Your task to perform on an android device: open a new tab in the chrome app Image 0: 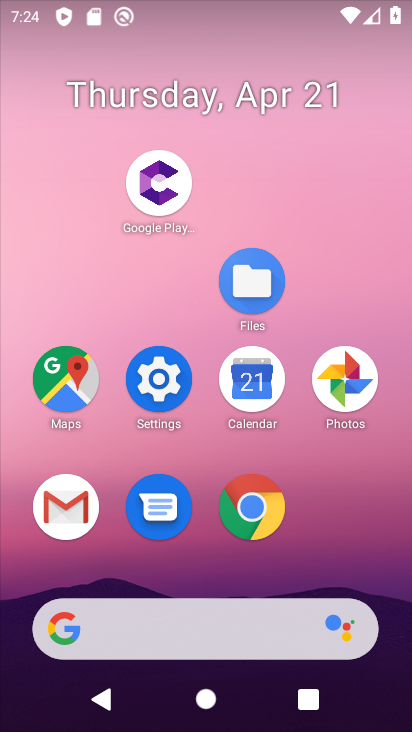
Step 0: click (247, 502)
Your task to perform on an android device: open a new tab in the chrome app Image 1: 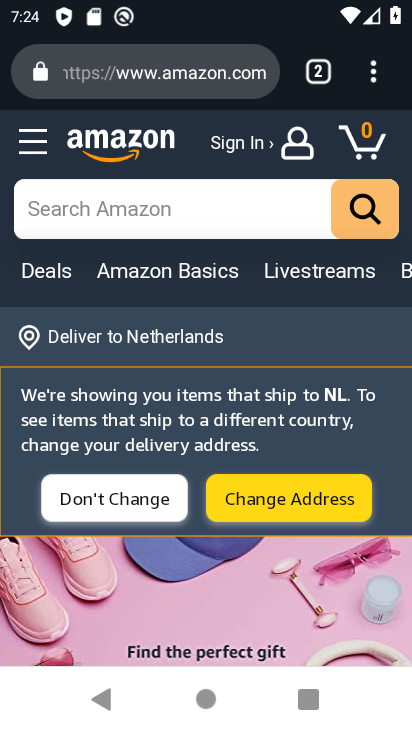
Step 1: click (376, 69)
Your task to perform on an android device: open a new tab in the chrome app Image 2: 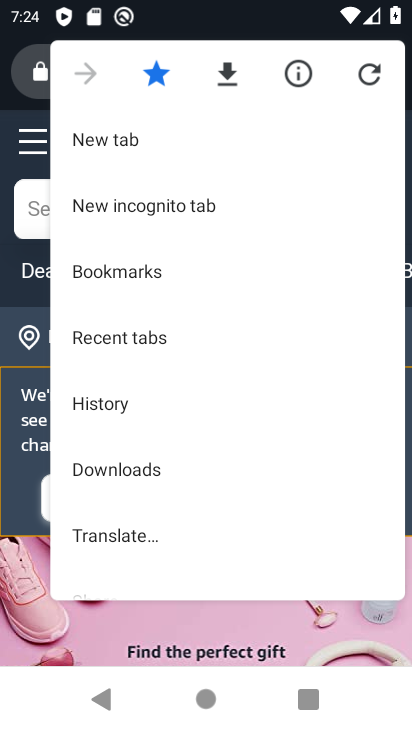
Step 2: click (118, 134)
Your task to perform on an android device: open a new tab in the chrome app Image 3: 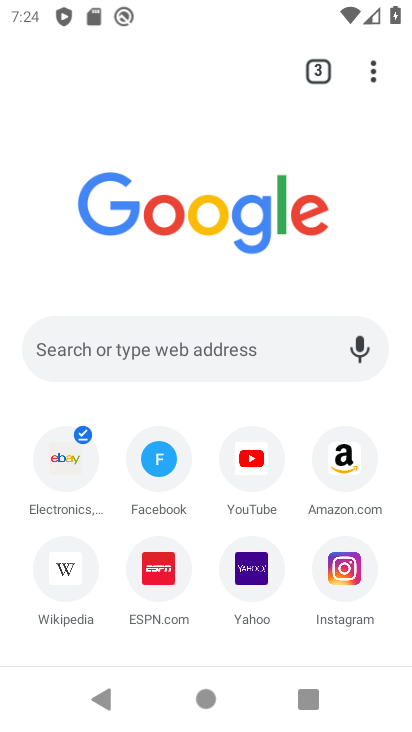
Step 3: task complete